Your task to perform on an android device: Open the map Image 0: 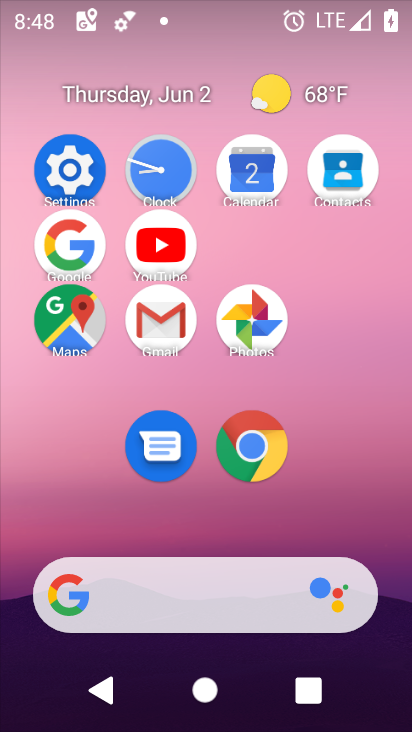
Step 0: click (67, 336)
Your task to perform on an android device: Open the map Image 1: 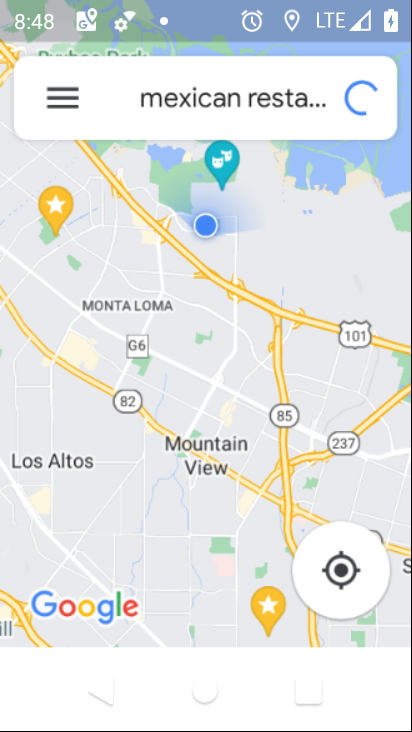
Step 1: task complete